Your task to perform on an android device: Open Google Chrome Image 0: 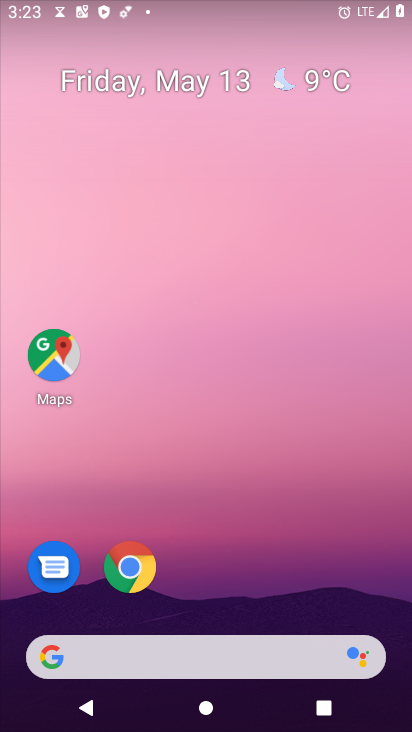
Step 0: click (136, 574)
Your task to perform on an android device: Open Google Chrome Image 1: 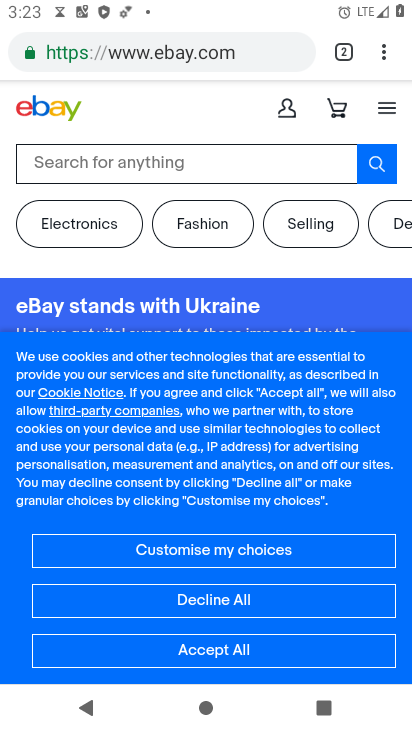
Step 1: task complete